Your task to perform on an android device: toggle airplane mode Image 0: 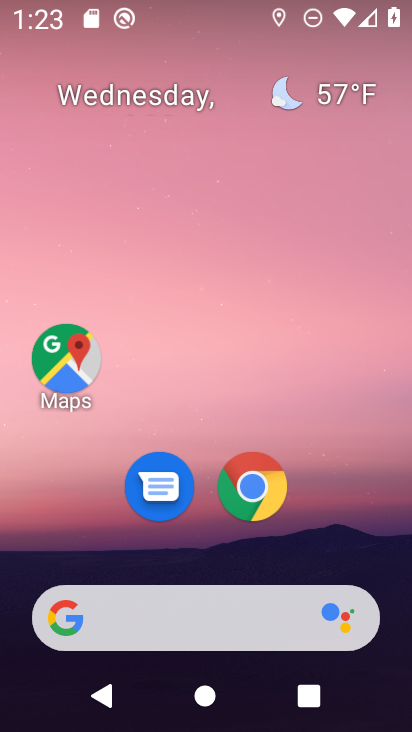
Step 0: press home button
Your task to perform on an android device: toggle airplane mode Image 1: 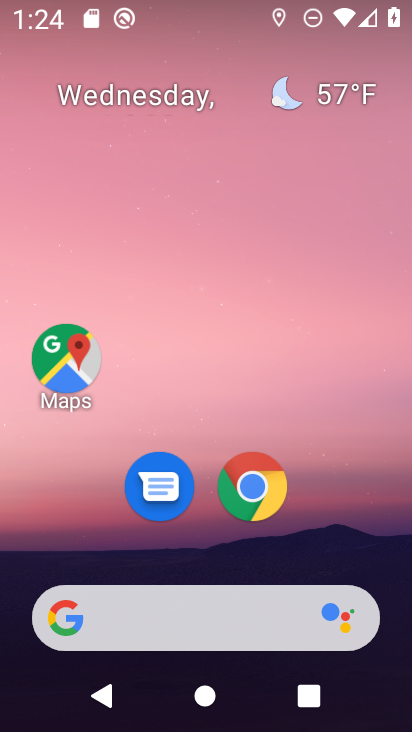
Step 1: drag from (380, 500) to (367, 95)
Your task to perform on an android device: toggle airplane mode Image 2: 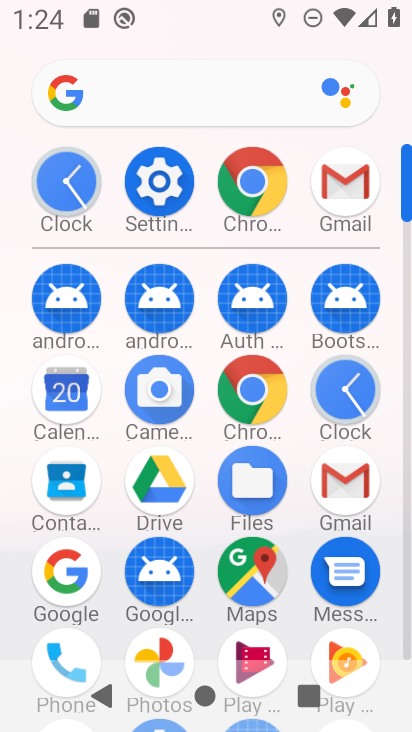
Step 2: click (168, 193)
Your task to perform on an android device: toggle airplane mode Image 3: 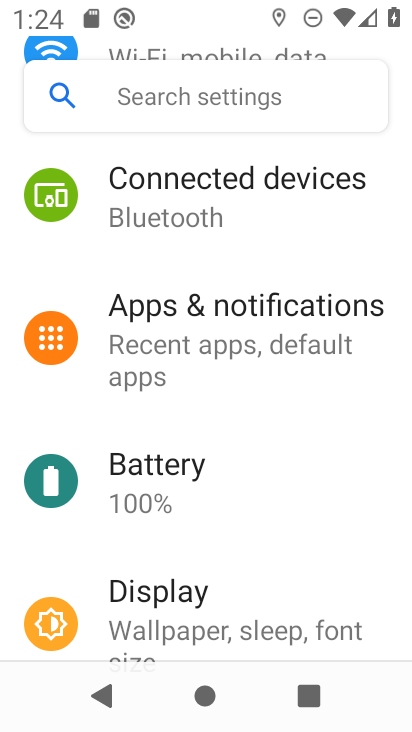
Step 3: drag from (362, 537) to (383, 383)
Your task to perform on an android device: toggle airplane mode Image 4: 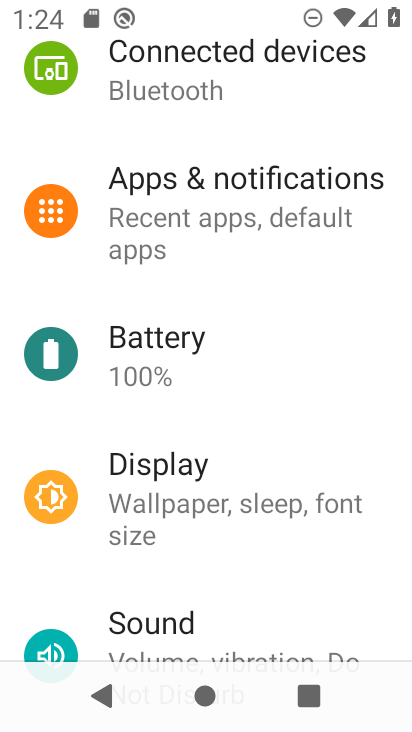
Step 4: drag from (347, 556) to (360, 343)
Your task to perform on an android device: toggle airplane mode Image 5: 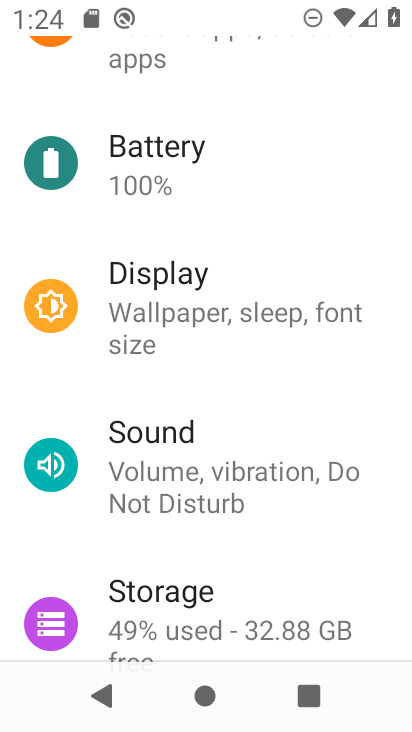
Step 5: drag from (344, 547) to (344, 373)
Your task to perform on an android device: toggle airplane mode Image 6: 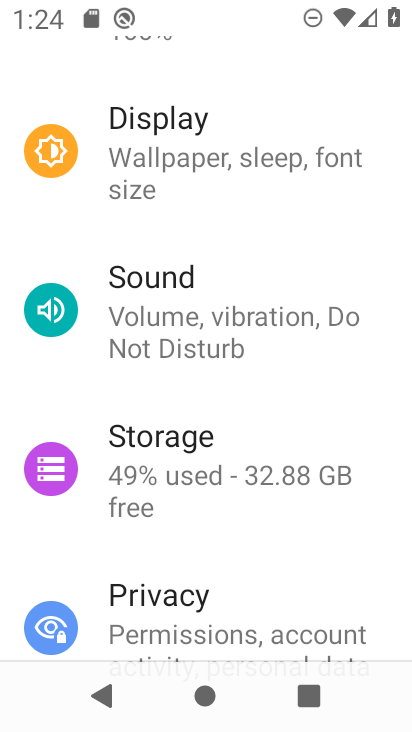
Step 6: drag from (348, 560) to (361, 353)
Your task to perform on an android device: toggle airplane mode Image 7: 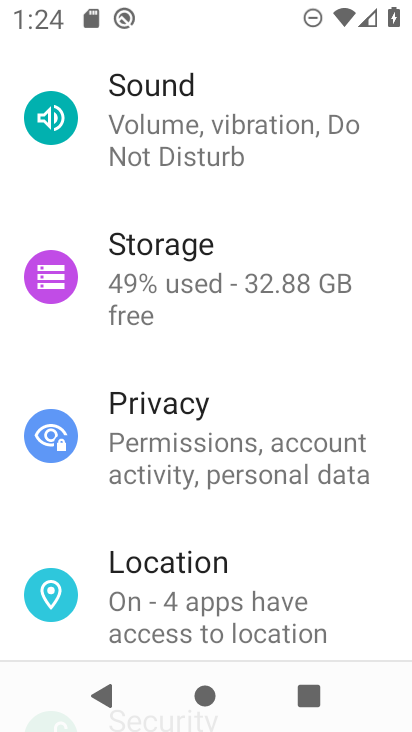
Step 7: drag from (333, 577) to (340, 447)
Your task to perform on an android device: toggle airplane mode Image 8: 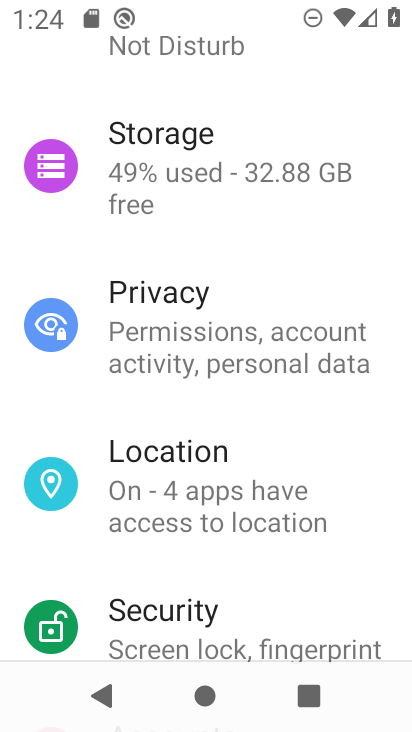
Step 8: drag from (376, 280) to (375, 391)
Your task to perform on an android device: toggle airplane mode Image 9: 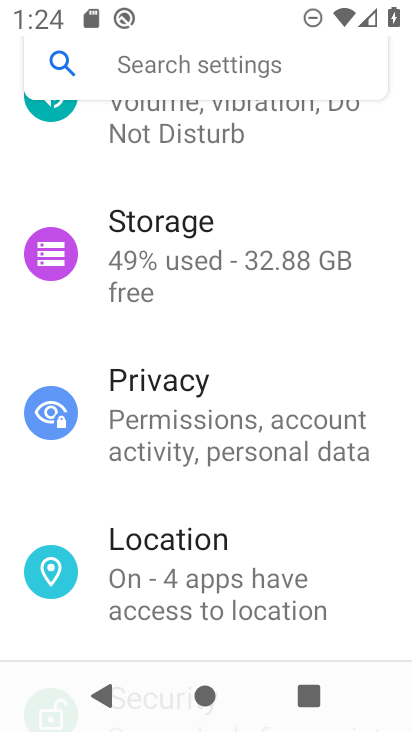
Step 9: drag from (373, 282) to (372, 400)
Your task to perform on an android device: toggle airplane mode Image 10: 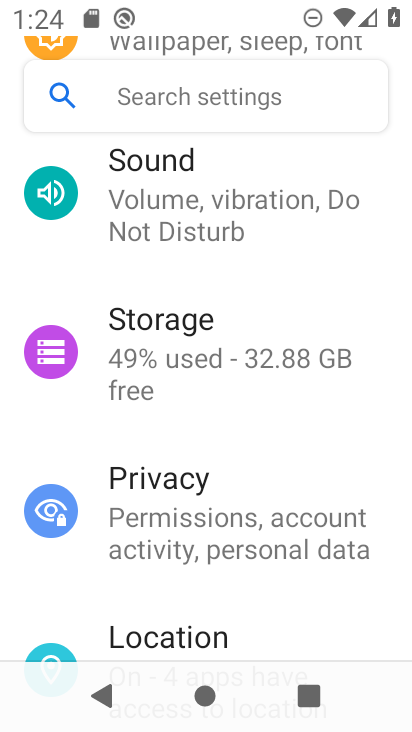
Step 10: drag from (372, 273) to (372, 381)
Your task to perform on an android device: toggle airplane mode Image 11: 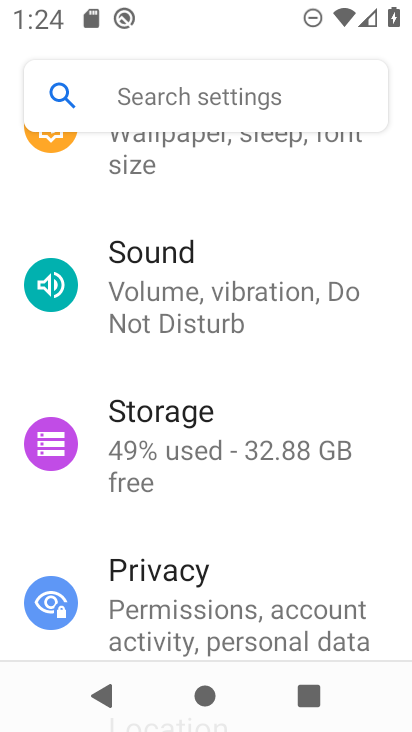
Step 11: drag from (377, 246) to (377, 384)
Your task to perform on an android device: toggle airplane mode Image 12: 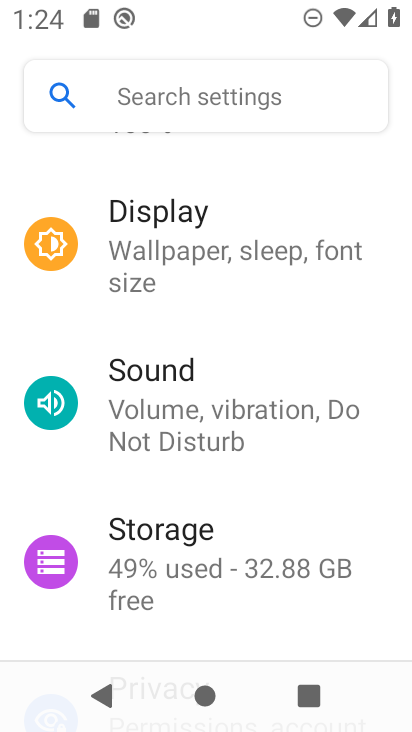
Step 12: drag from (375, 242) to (375, 406)
Your task to perform on an android device: toggle airplane mode Image 13: 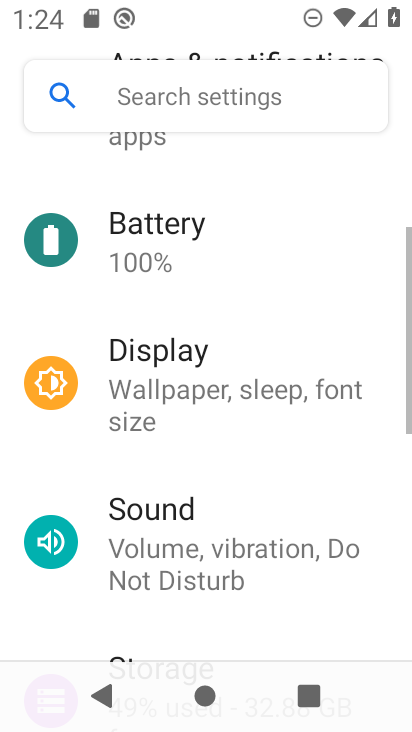
Step 13: drag from (355, 236) to (348, 371)
Your task to perform on an android device: toggle airplane mode Image 14: 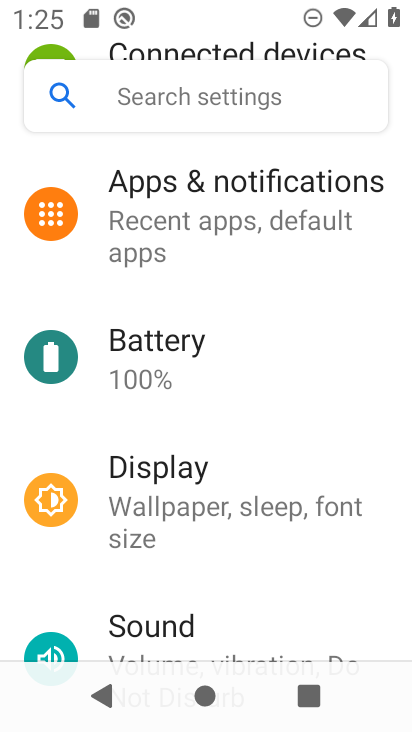
Step 14: drag from (361, 215) to (363, 424)
Your task to perform on an android device: toggle airplane mode Image 15: 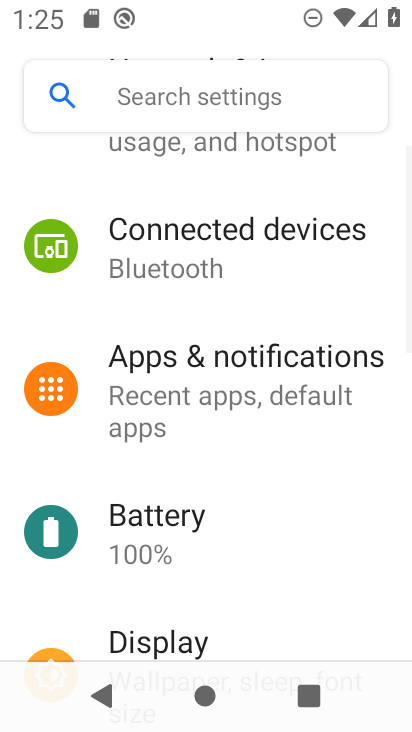
Step 15: drag from (367, 180) to (368, 362)
Your task to perform on an android device: toggle airplane mode Image 16: 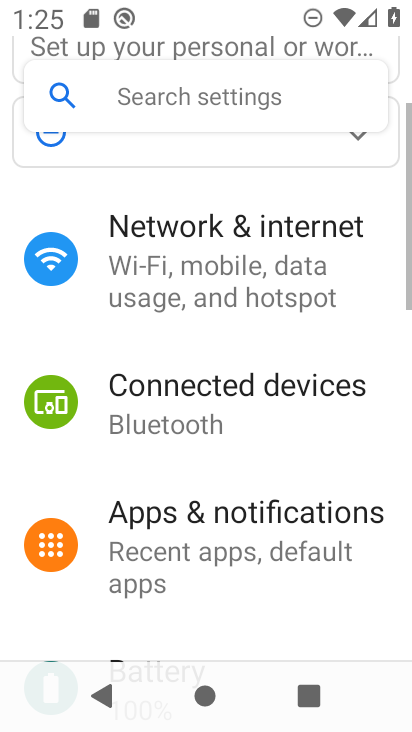
Step 16: click (265, 294)
Your task to perform on an android device: toggle airplane mode Image 17: 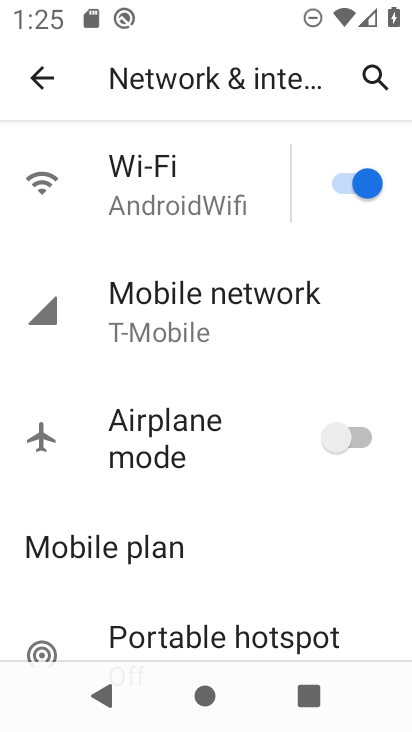
Step 17: click (342, 458)
Your task to perform on an android device: toggle airplane mode Image 18: 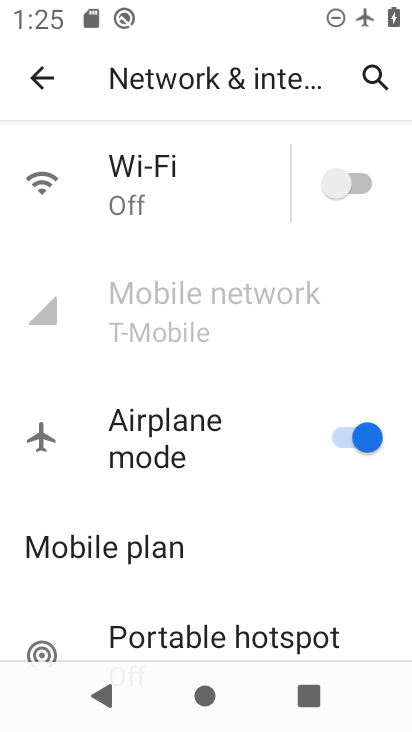
Step 18: task complete